Your task to perform on an android device: Search for alienware area 51 on newegg, select the first entry, add it to the cart, then select checkout. Image 0: 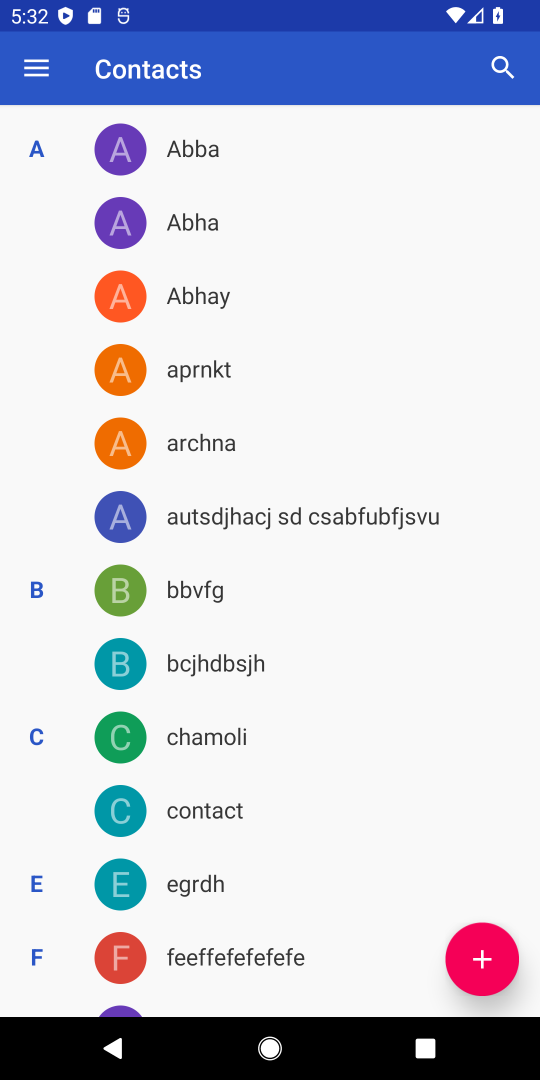
Step 0: press home button
Your task to perform on an android device: Search for alienware area 51 on newegg, select the first entry, add it to the cart, then select checkout. Image 1: 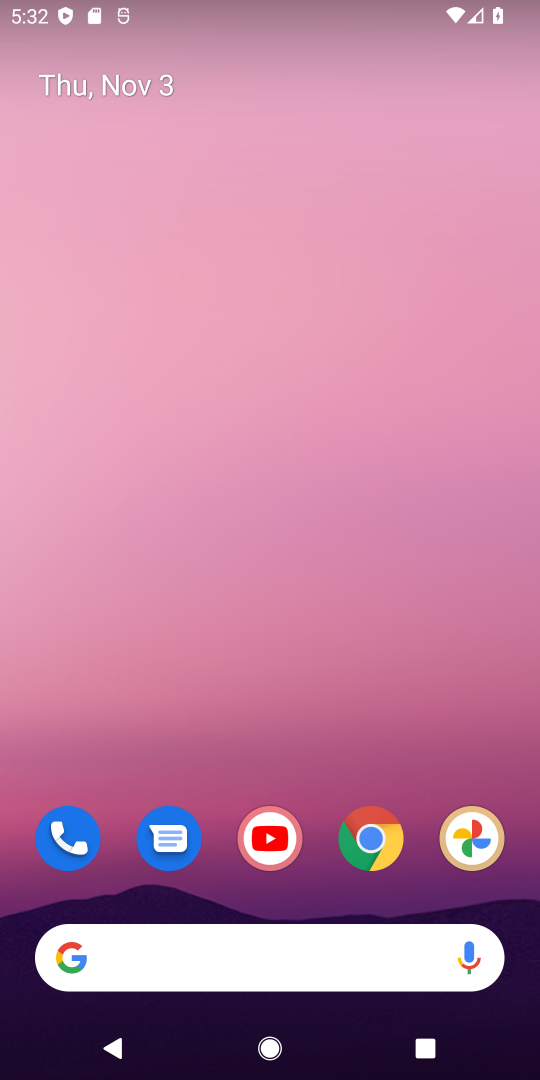
Step 1: click (377, 824)
Your task to perform on an android device: Search for alienware area 51 on newegg, select the first entry, add it to the cart, then select checkout. Image 2: 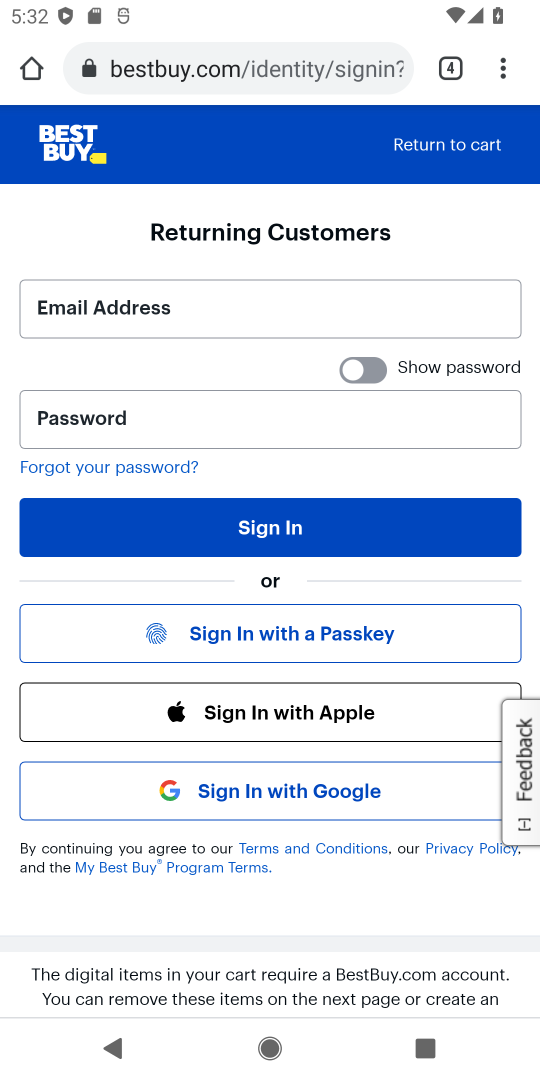
Step 2: click (439, 146)
Your task to perform on an android device: Search for alienware area 51 on newegg, select the first entry, add it to the cart, then select checkout. Image 3: 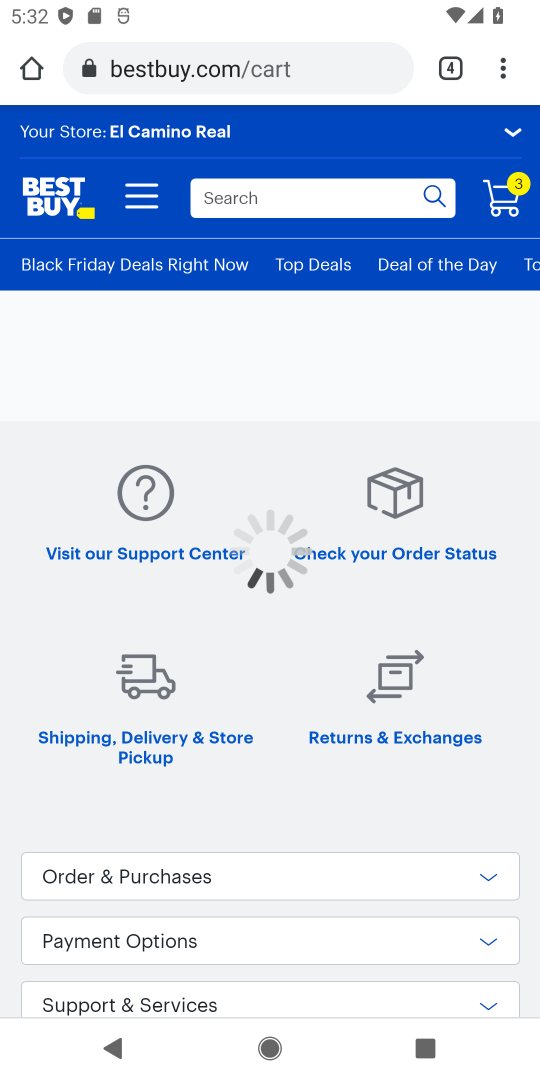
Step 3: click (442, 65)
Your task to perform on an android device: Search for alienware area 51 on newegg, select the first entry, add it to the cart, then select checkout. Image 4: 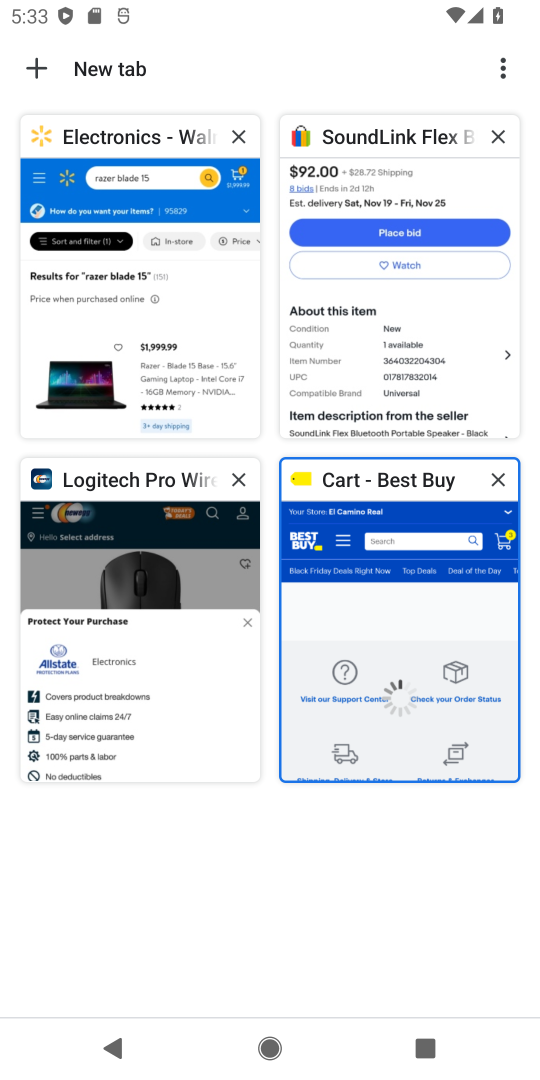
Step 4: click (172, 591)
Your task to perform on an android device: Search for alienware area 51 on newegg, select the first entry, add it to the cart, then select checkout. Image 5: 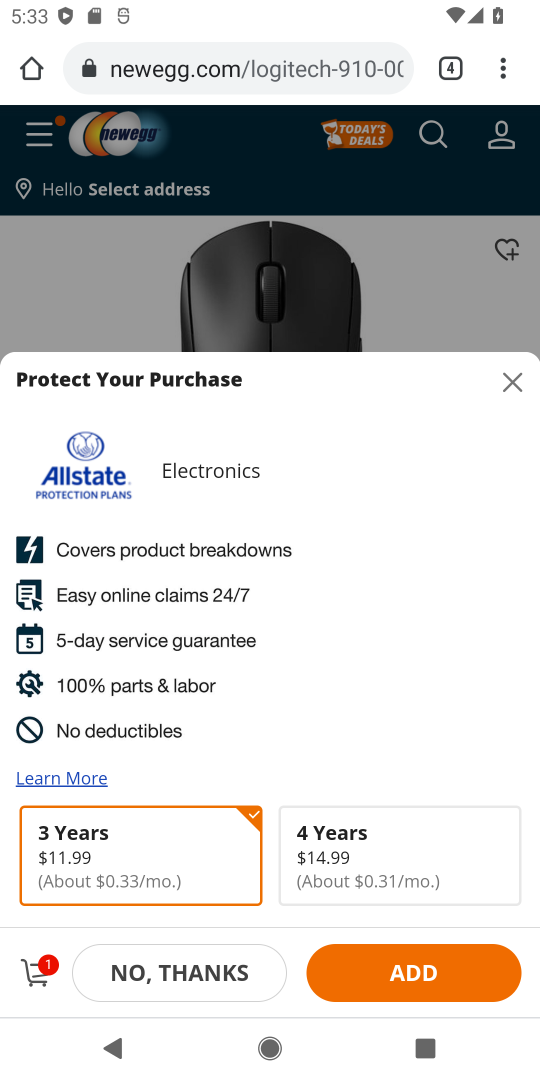
Step 5: click (506, 374)
Your task to perform on an android device: Search for alienware area 51 on newegg, select the first entry, add it to the cart, then select checkout. Image 6: 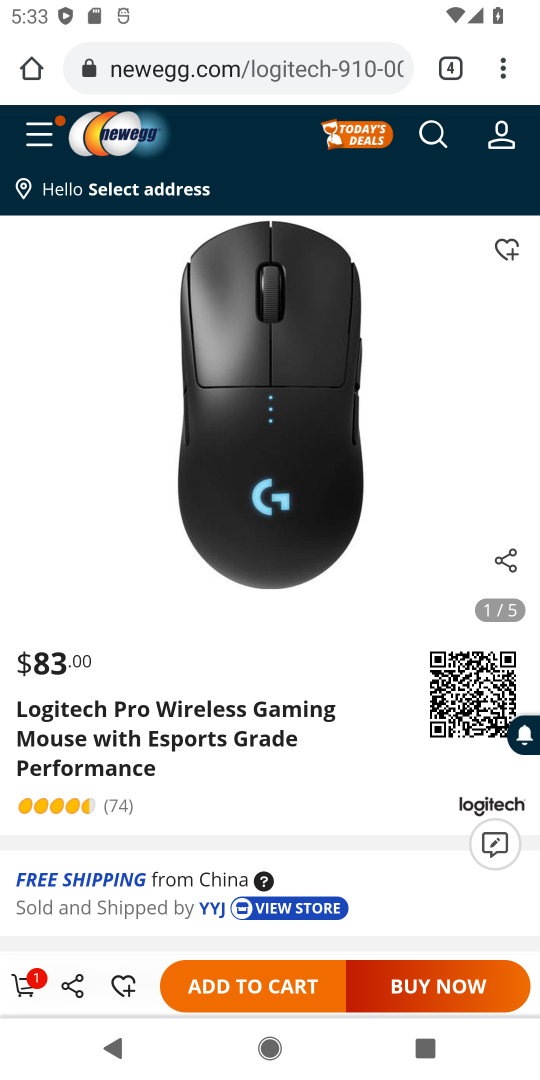
Step 6: click (432, 140)
Your task to perform on an android device: Search for alienware area 51 on newegg, select the first entry, add it to the cart, then select checkout. Image 7: 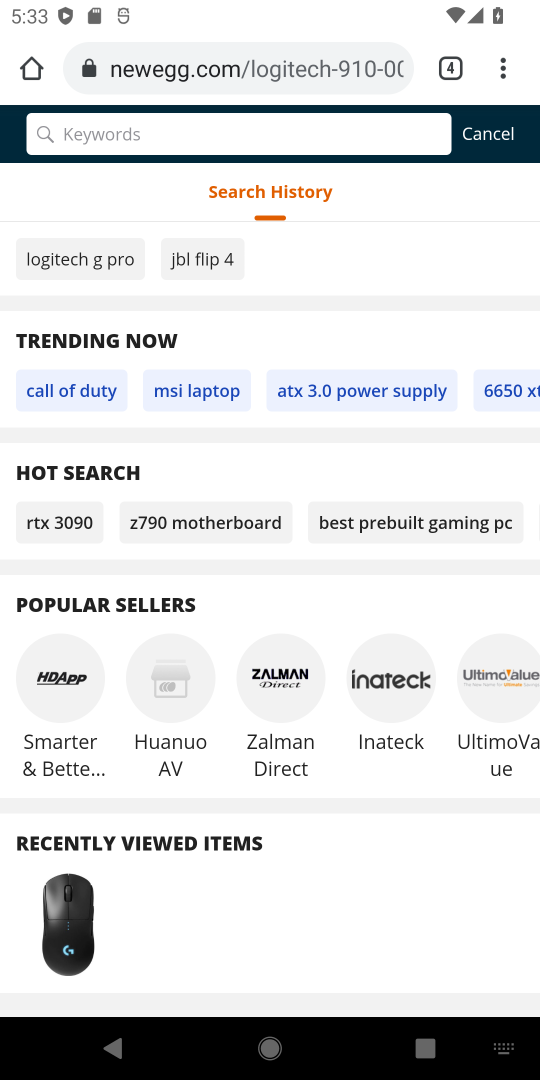
Step 7: type "alienware area 51"
Your task to perform on an android device: Search for alienware area 51 on newegg, select the first entry, add it to the cart, then select checkout. Image 8: 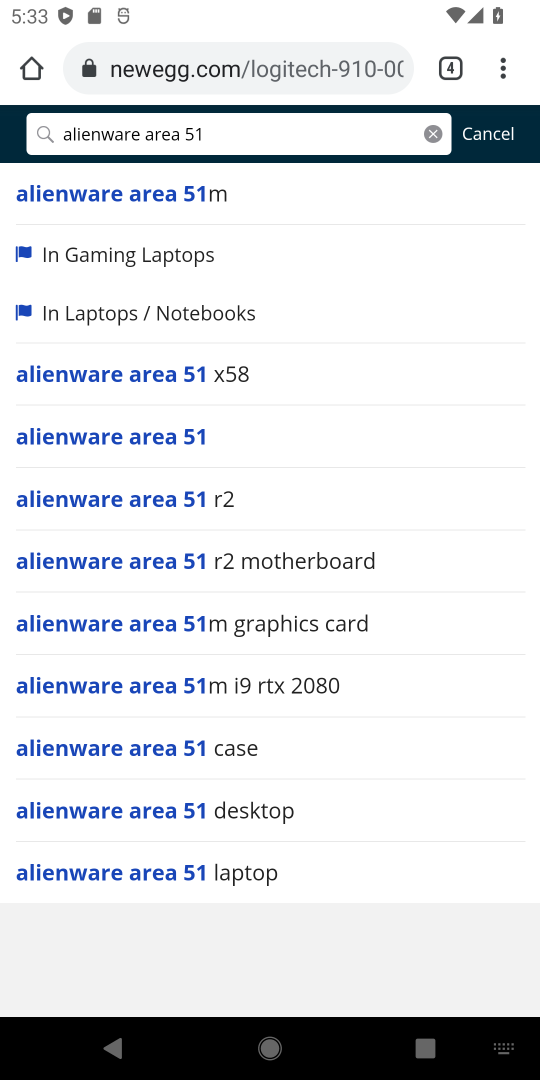
Step 8: click (186, 196)
Your task to perform on an android device: Search for alienware area 51 on newegg, select the first entry, add it to the cart, then select checkout. Image 9: 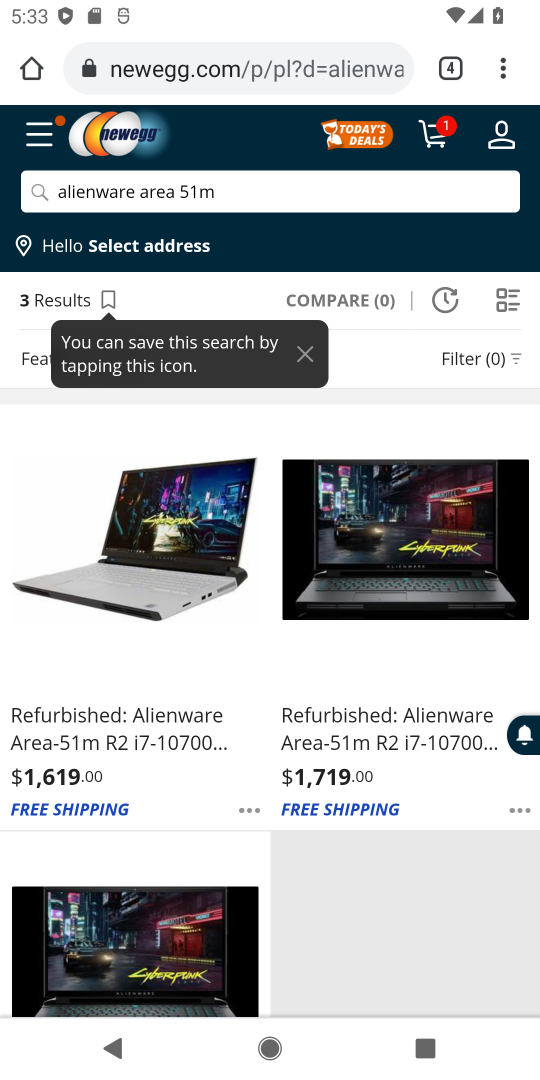
Step 9: click (396, 735)
Your task to perform on an android device: Search for alienware area 51 on newegg, select the first entry, add it to the cart, then select checkout. Image 10: 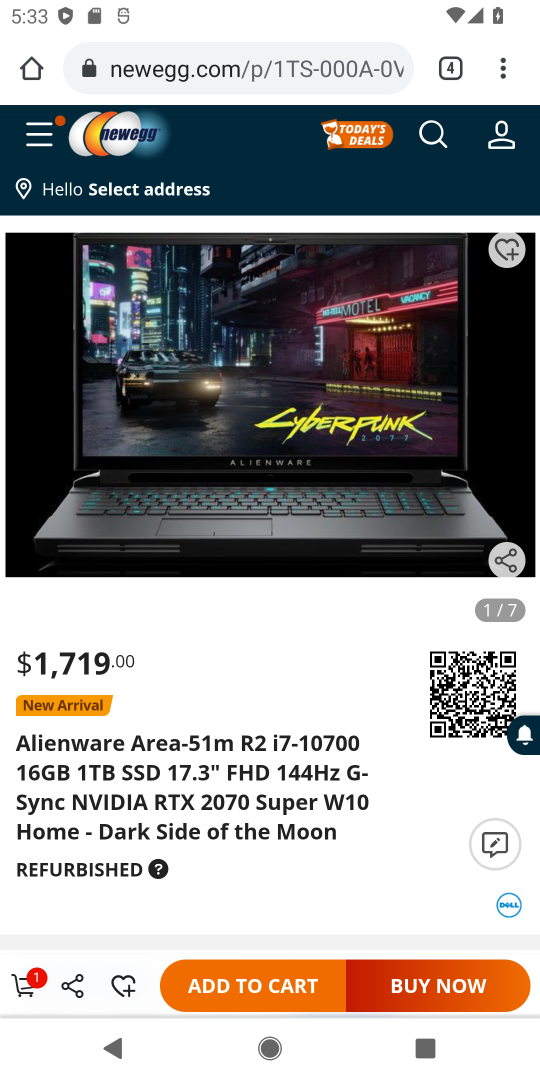
Step 10: click (221, 996)
Your task to perform on an android device: Search for alienware area 51 on newegg, select the first entry, add it to the cart, then select checkout. Image 11: 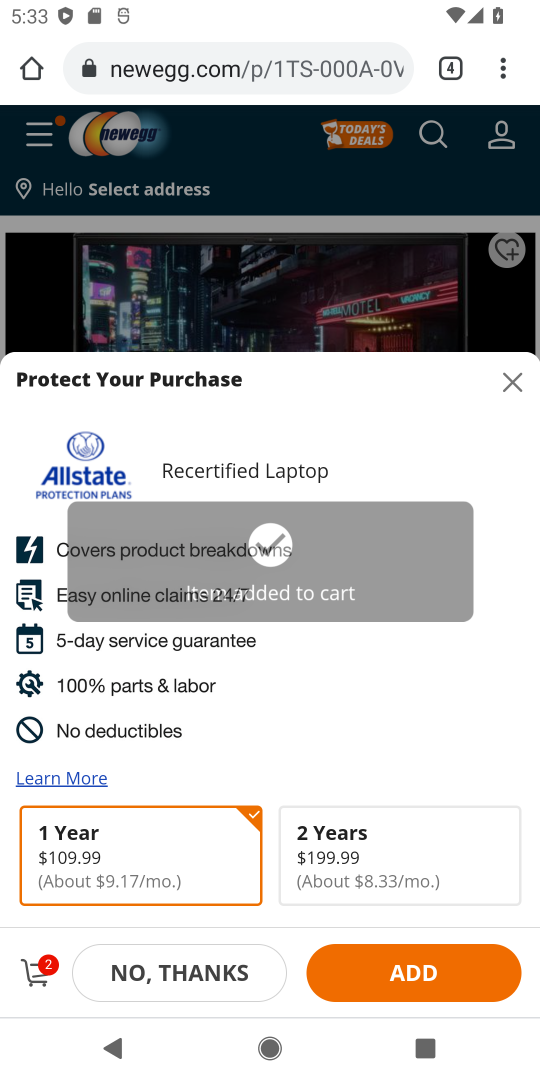
Step 11: click (186, 970)
Your task to perform on an android device: Search for alienware area 51 on newegg, select the first entry, add it to the cart, then select checkout. Image 12: 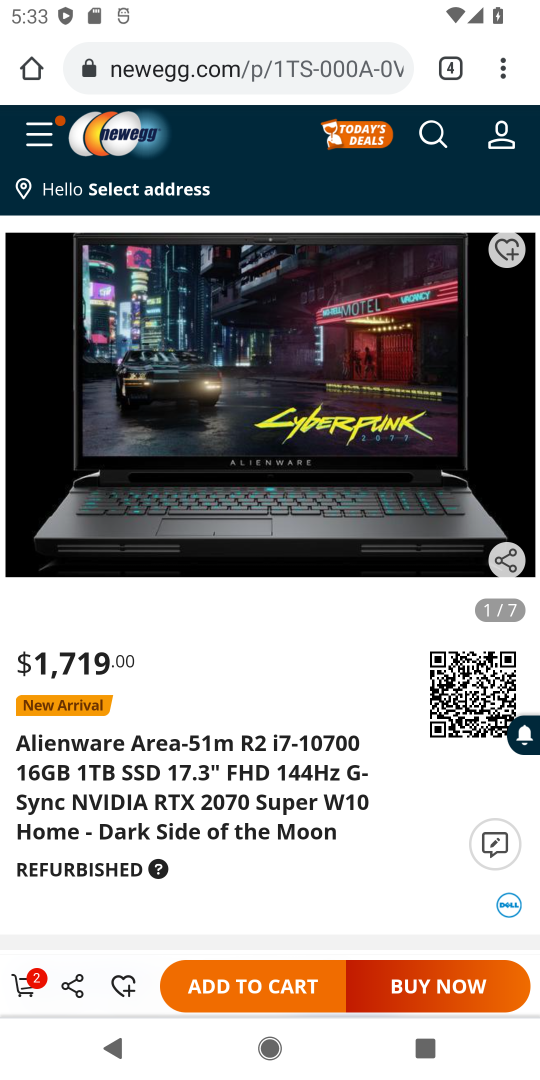
Step 12: click (30, 985)
Your task to perform on an android device: Search for alienware area 51 on newegg, select the first entry, add it to the cart, then select checkout. Image 13: 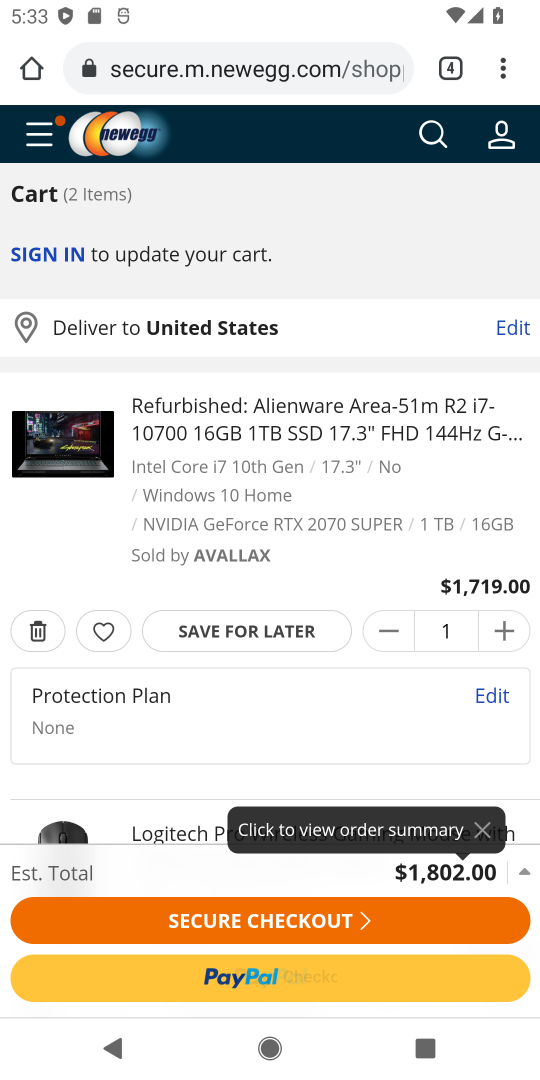
Step 13: click (301, 926)
Your task to perform on an android device: Search for alienware area 51 on newegg, select the first entry, add it to the cart, then select checkout. Image 14: 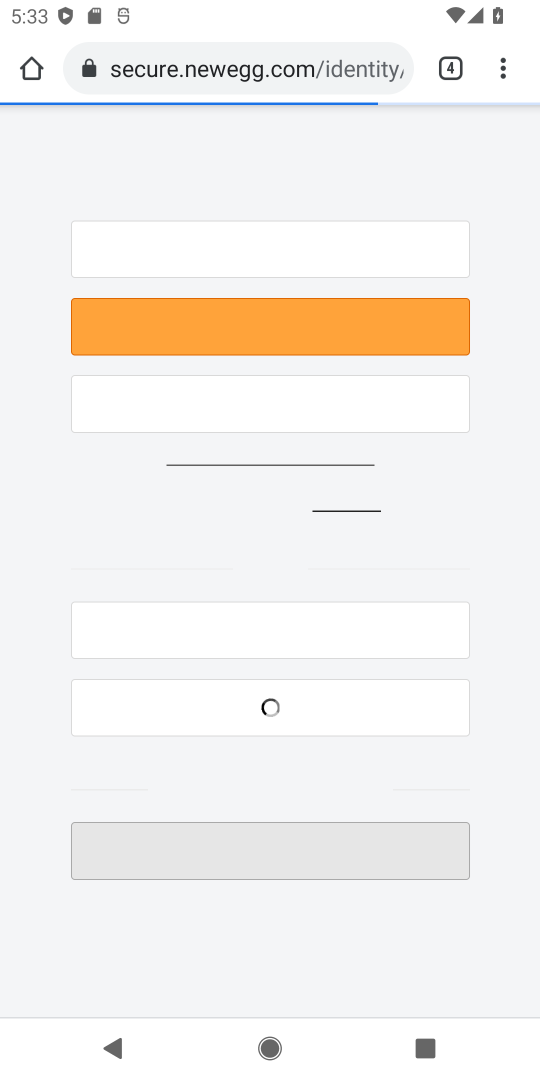
Step 14: task complete